Your task to perform on an android device: set an alarm Image 0: 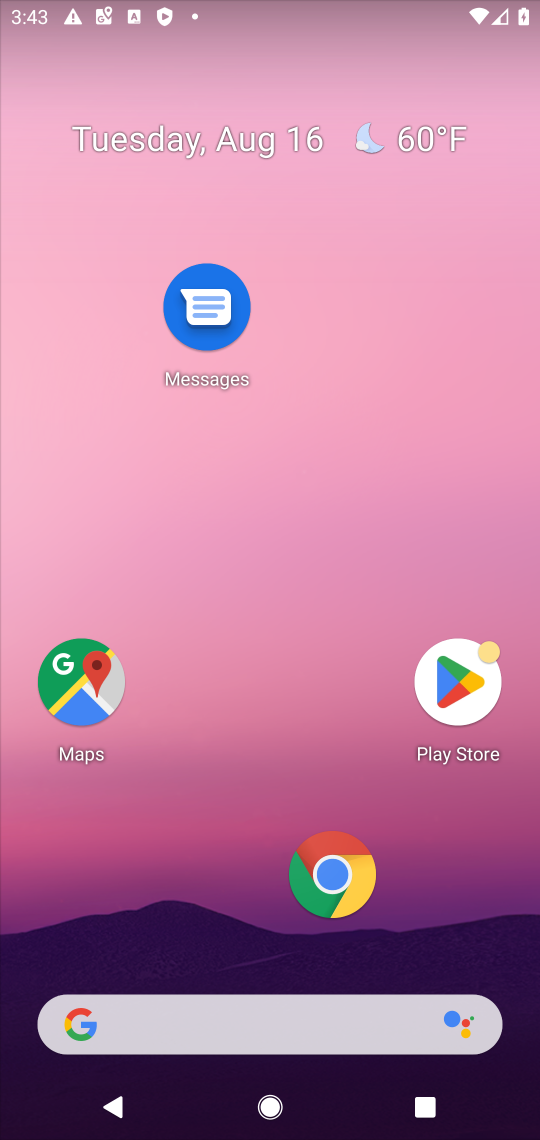
Step 0: drag from (248, 772) to (139, 66)
Your task to perform on an android device: set an alarm Image 1: 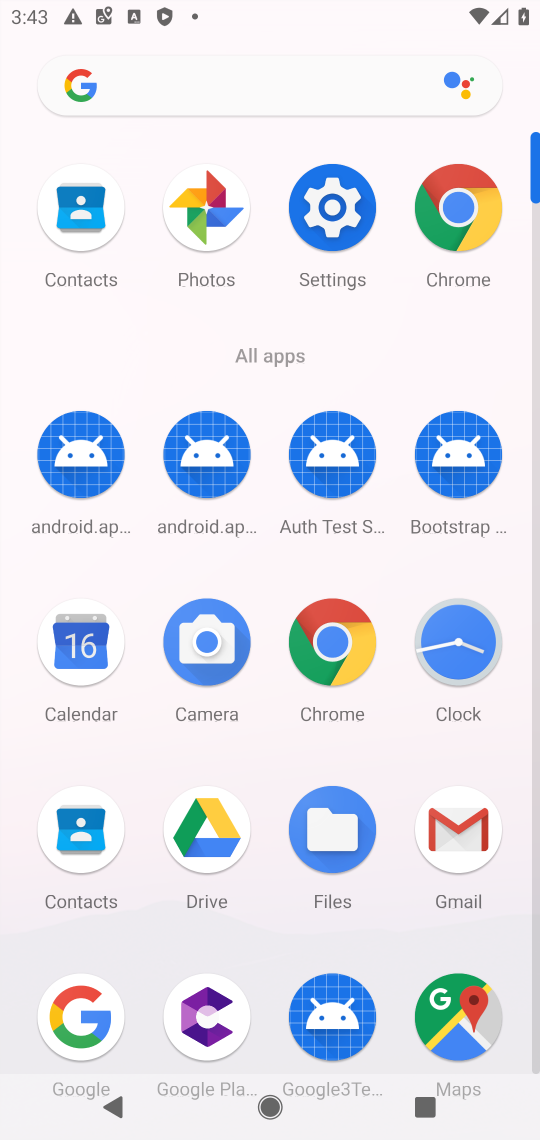
Step 1: click (464, 637)
Your task to perform on an android device: set an alarm Image 2: 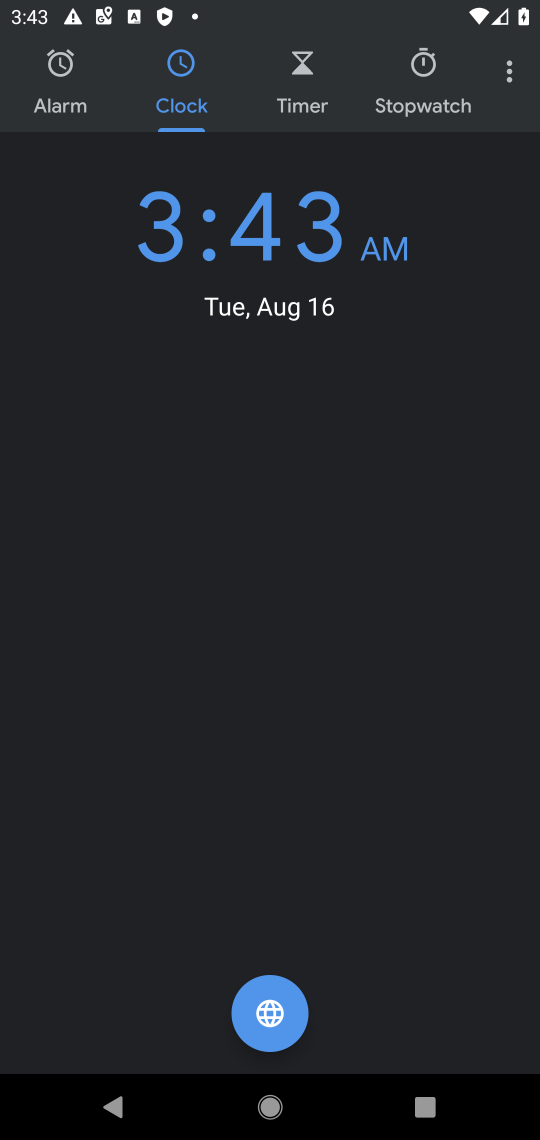
Step 2: click (65, 57)
Your task to perform on an android device: set an alarm Image 3: 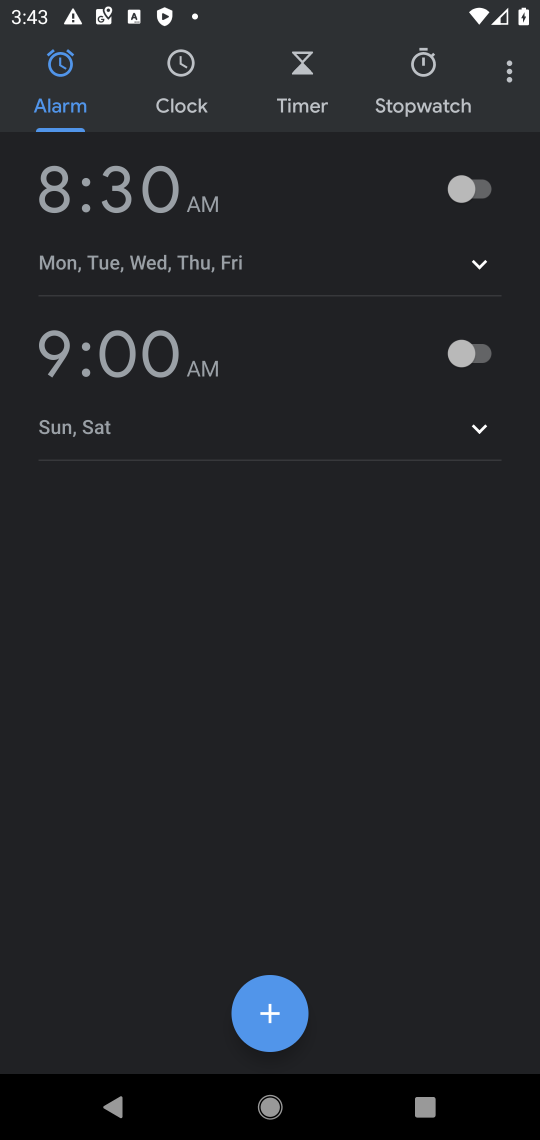
Step 3: click (472, 186)
Your task to perform on an android device: set an alarm Image 4: 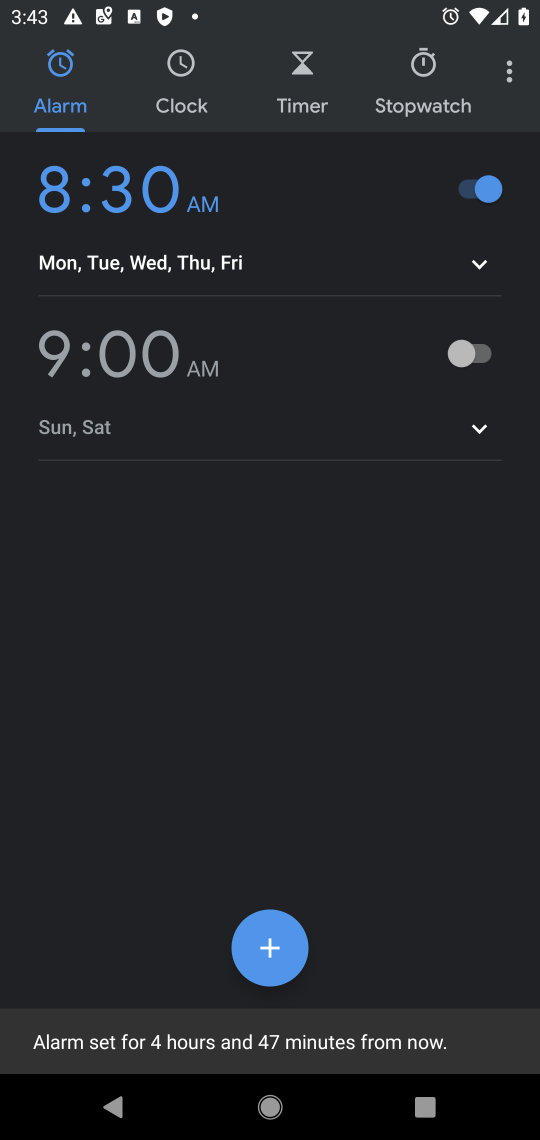
Step 4: task complete